Your task to perform on an android device: turn off airplane mode Image 0: 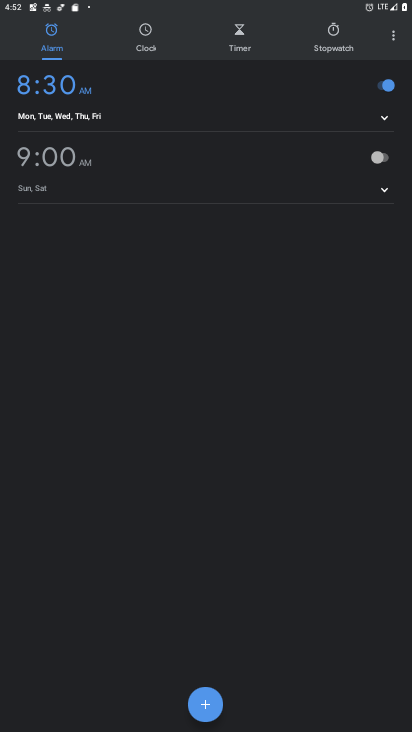
Step 0: press home button
Your task to perform on an android device: turn off airplane mode Image 1: 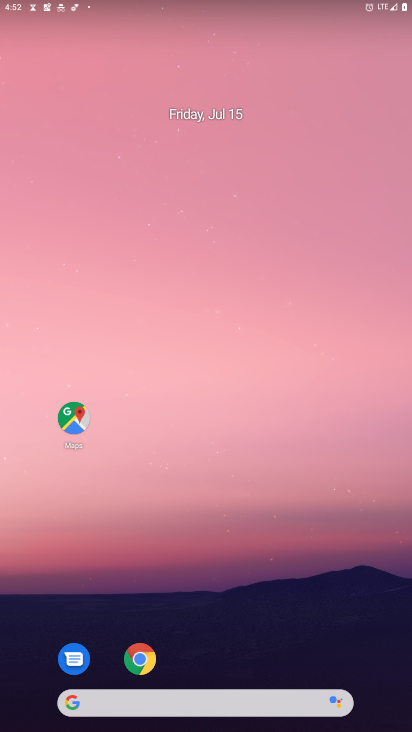
Step 1: drag from (192, 685) to (121, 15)
Your task to perform on an android device: turn off airplane mode Image 2: 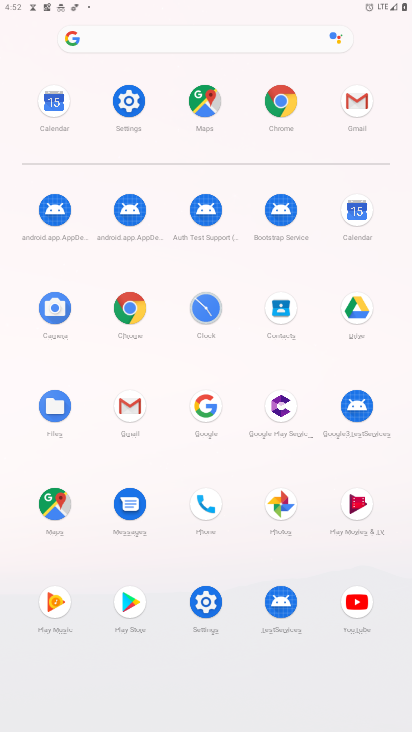
Step 2: click (130, 98)
Your task to perform on an android device: turn off airplane mode Image 3: 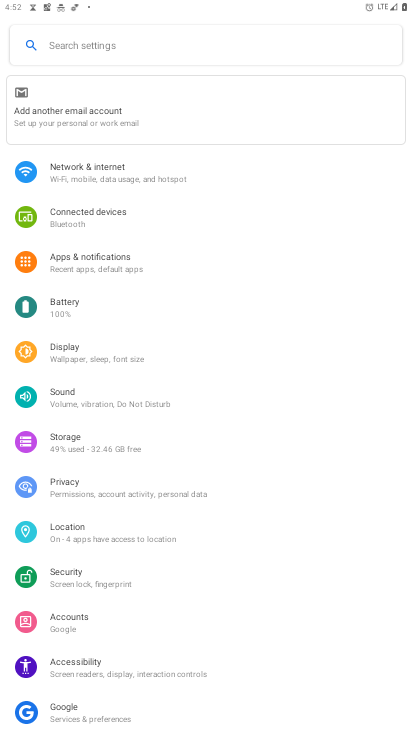
Step 3: click (136, 165)
Your task to perform on an android device: turn off airplane mode Image 4: 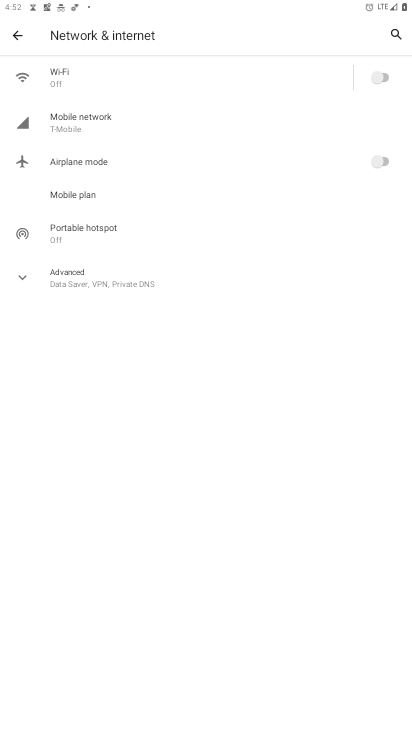
Step 4: task complete